Your task to perform on an android device: star an email in the gmail app Image 0: 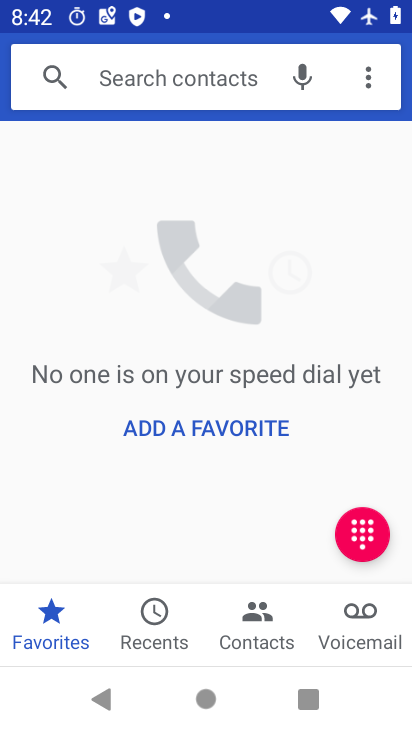
Step 0: press home button
Your task to perform on an android device: star an email in the gmail app Image 1: 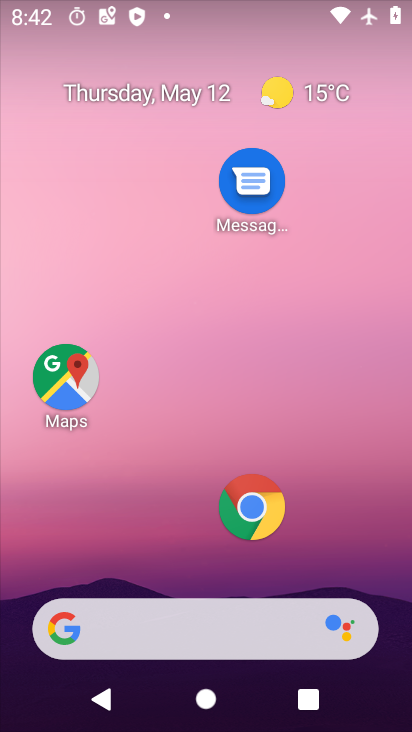
Step 1: drag from (303, 581) to (361, 38)
Your task to perform on an android device: star an email in the gmail app Image 2: 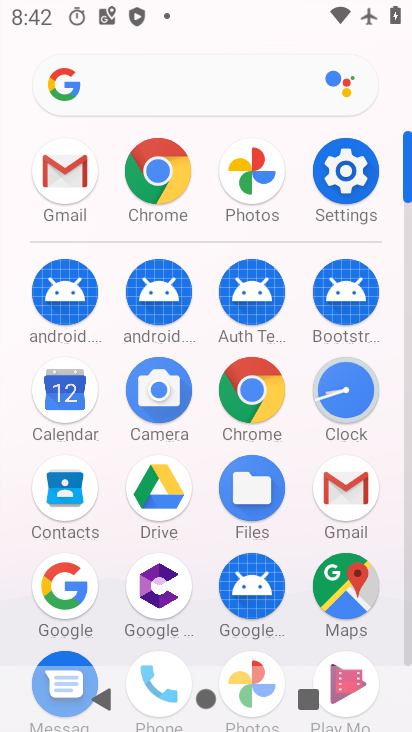
Step 2: click (345, 493)
Your task to perform on an android device: star an email in the gmail app Image 3: 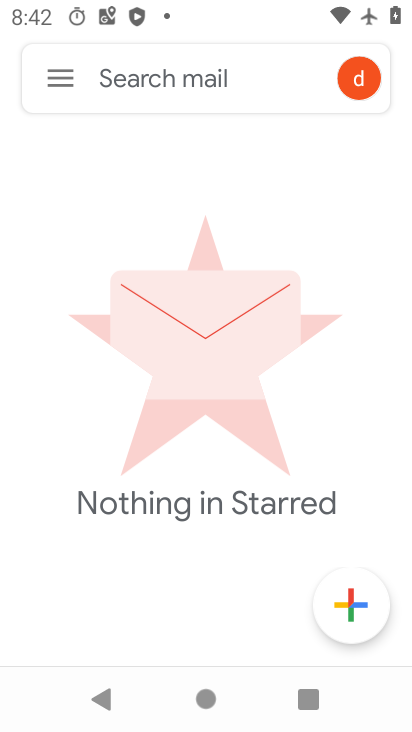
Step 3: click (47, 77)
Your task to perform on an android device: star an email in the gmail app Image 4: 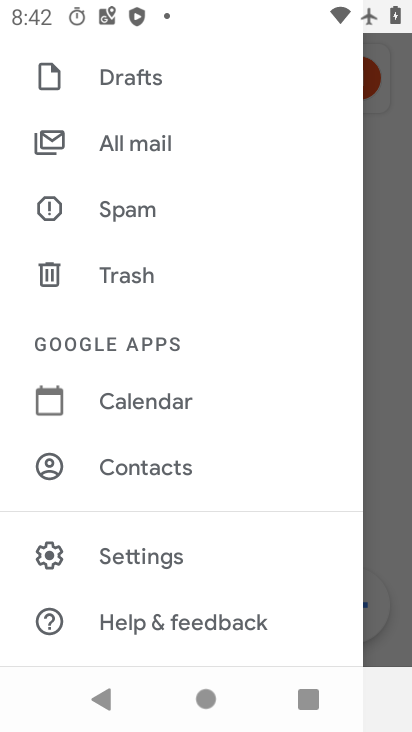
Step 4: click (199, 144)
Your task to perform on an android device: star an email in the gmail app Image 5: 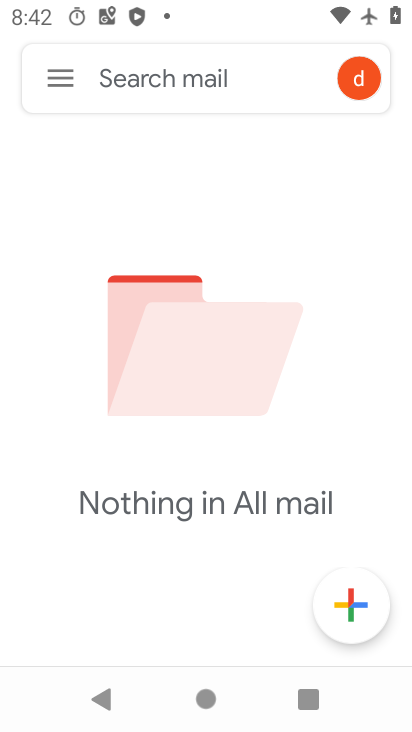
Step 5: task complete